Your task to perform on an android device: Open the map Image 0: 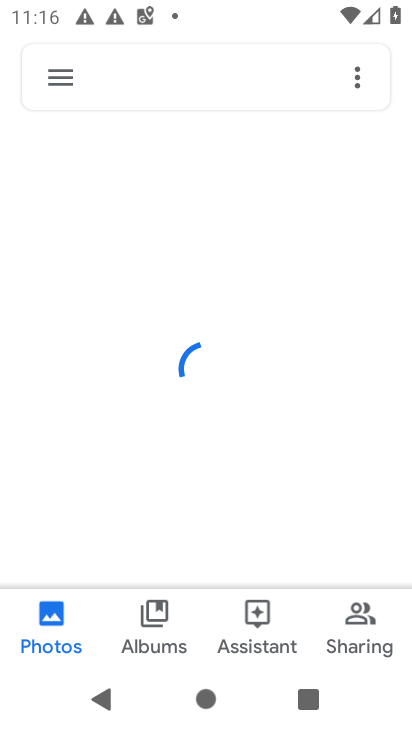
Step 0: press back button
Your task to perform on an android device: Open the map Image 1: 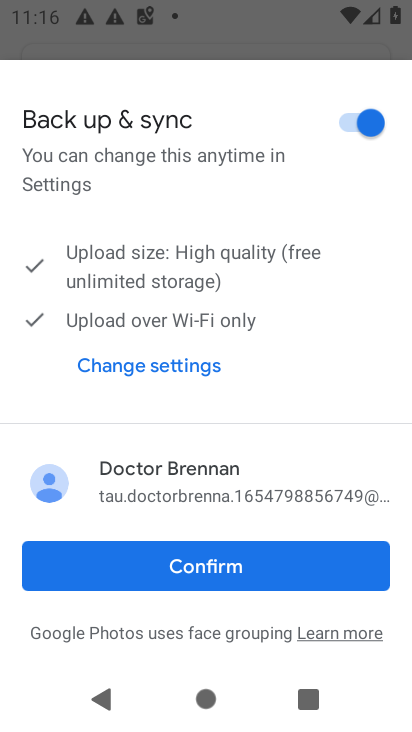
Step 1: press home button
Your task to perform on an android device: Open the map Image 2: 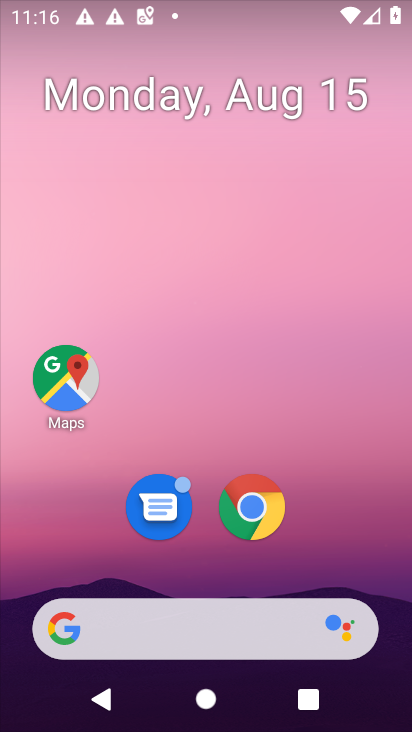
Step 2: click (64, 383)
Your task to perform on an android device: Open the map Image 3: 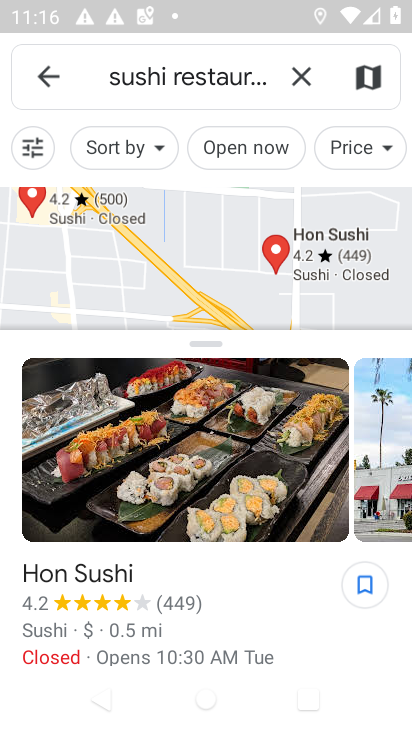
Step 3: click (300, 76)
Your task to perform on an android device: Open the map Image 4: 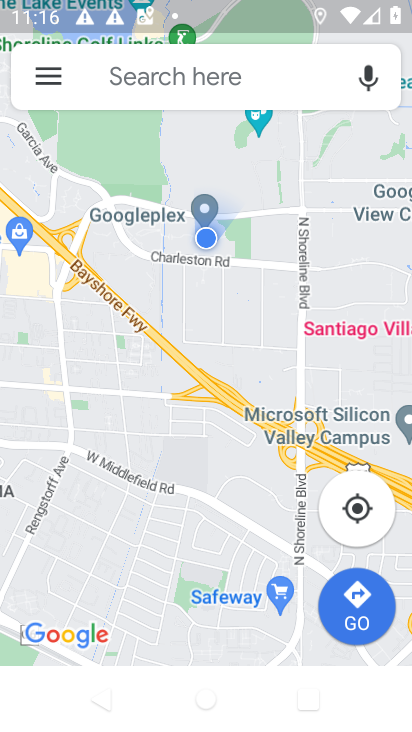
Step 4: task complete